Your task to perform on an android device: Show me the best rated power washer on Home Depot. Image 0: 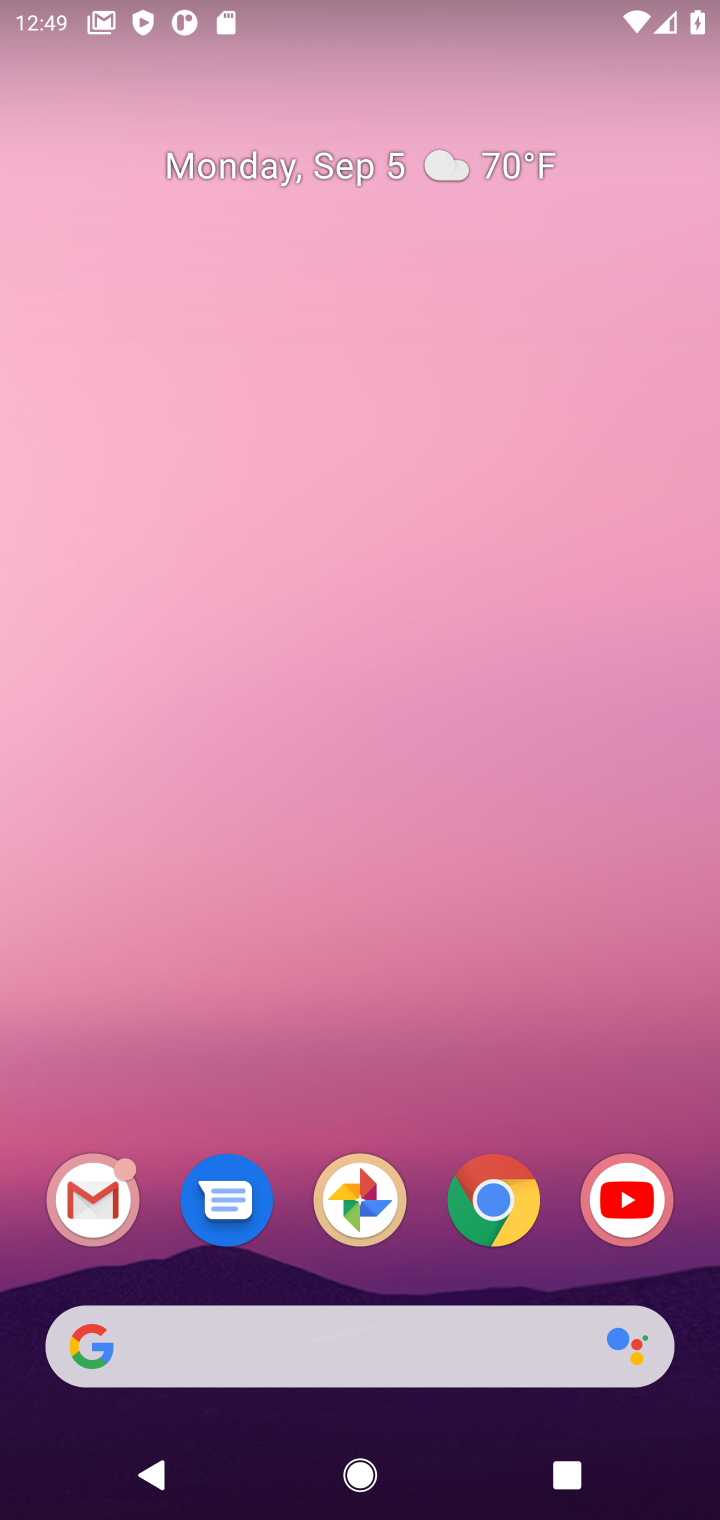
Step 0: drag from (433, 1302) to (596, 157)
Your task to perform on an android device: Show me the best rated power washer on Home Depot. Image 1: 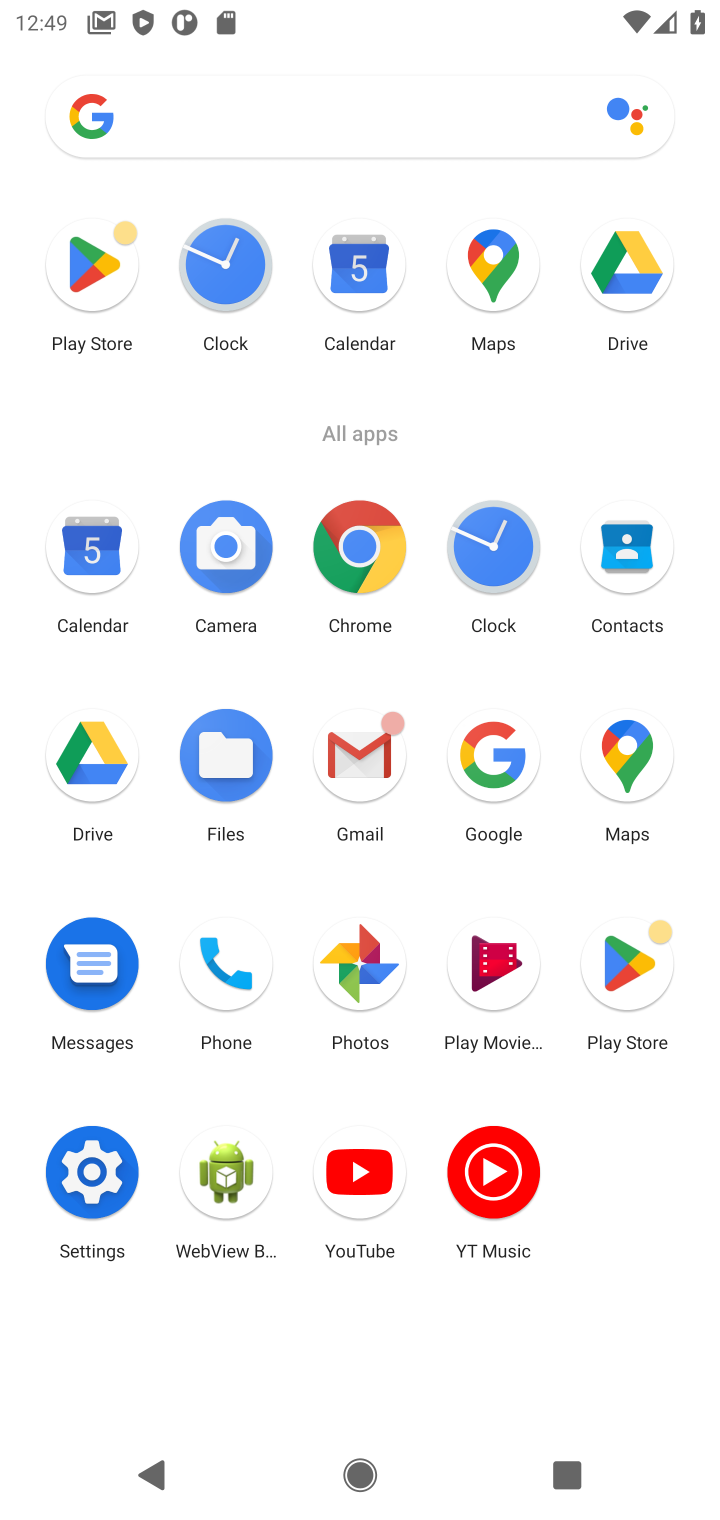
Step 1: click (363, 555)
Your task to perform on an android device: Show me the best rated power washer on Home Depot. Image 2: 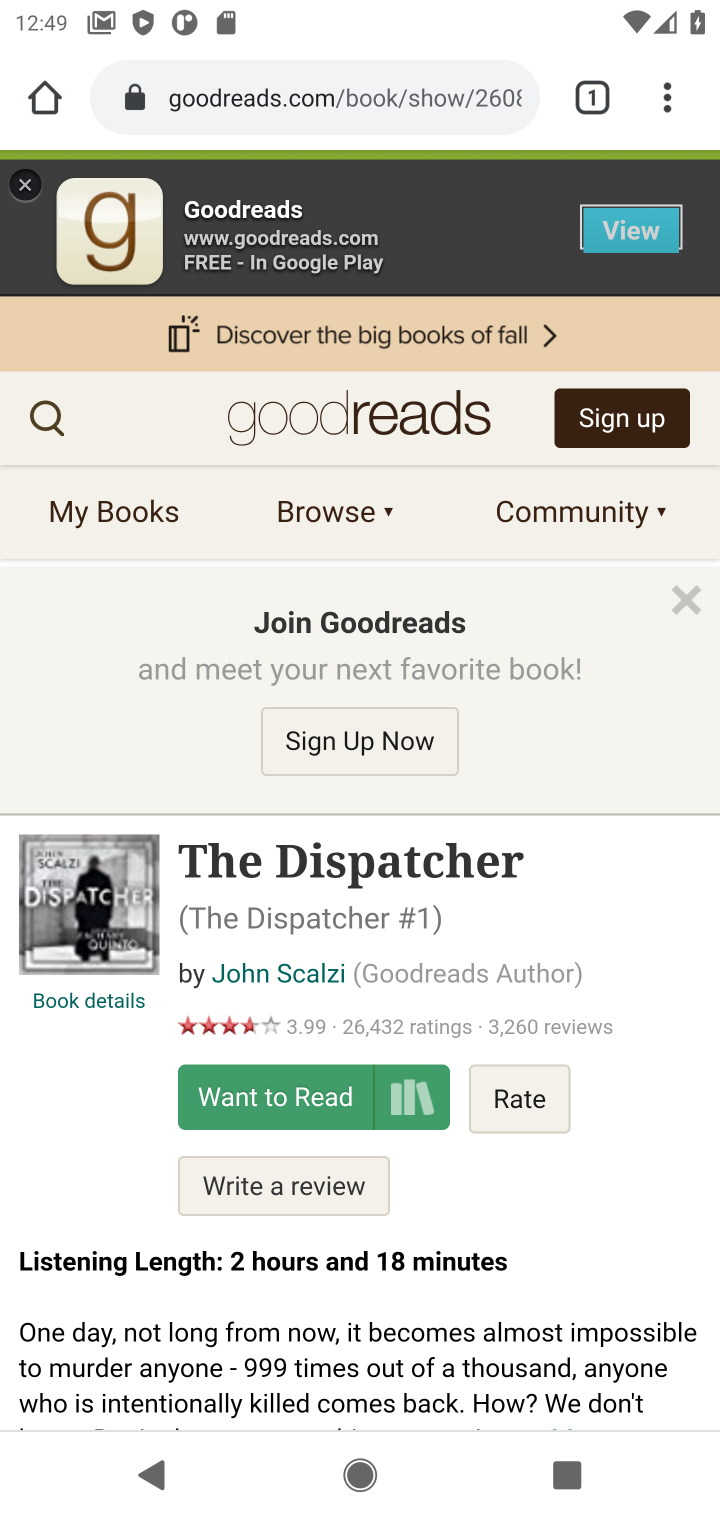
Step 2: click (358, 66)
Your task to perform on an android device: Show me the best rated power washer on Home Depot. Image 3: 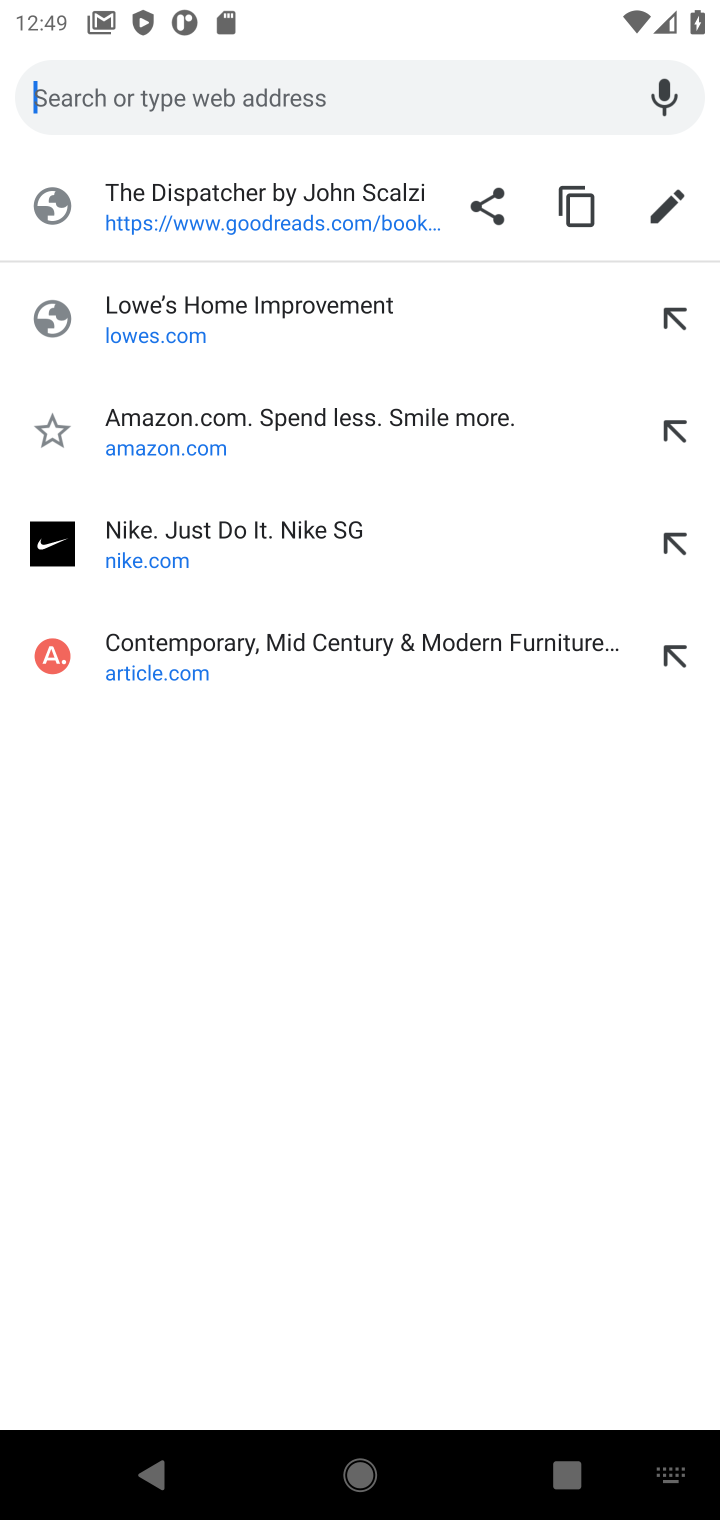
Step 3: type "home depot]"
Your task to perform on an android device: Show me the best rated power washer on Home Depot. Image 4: 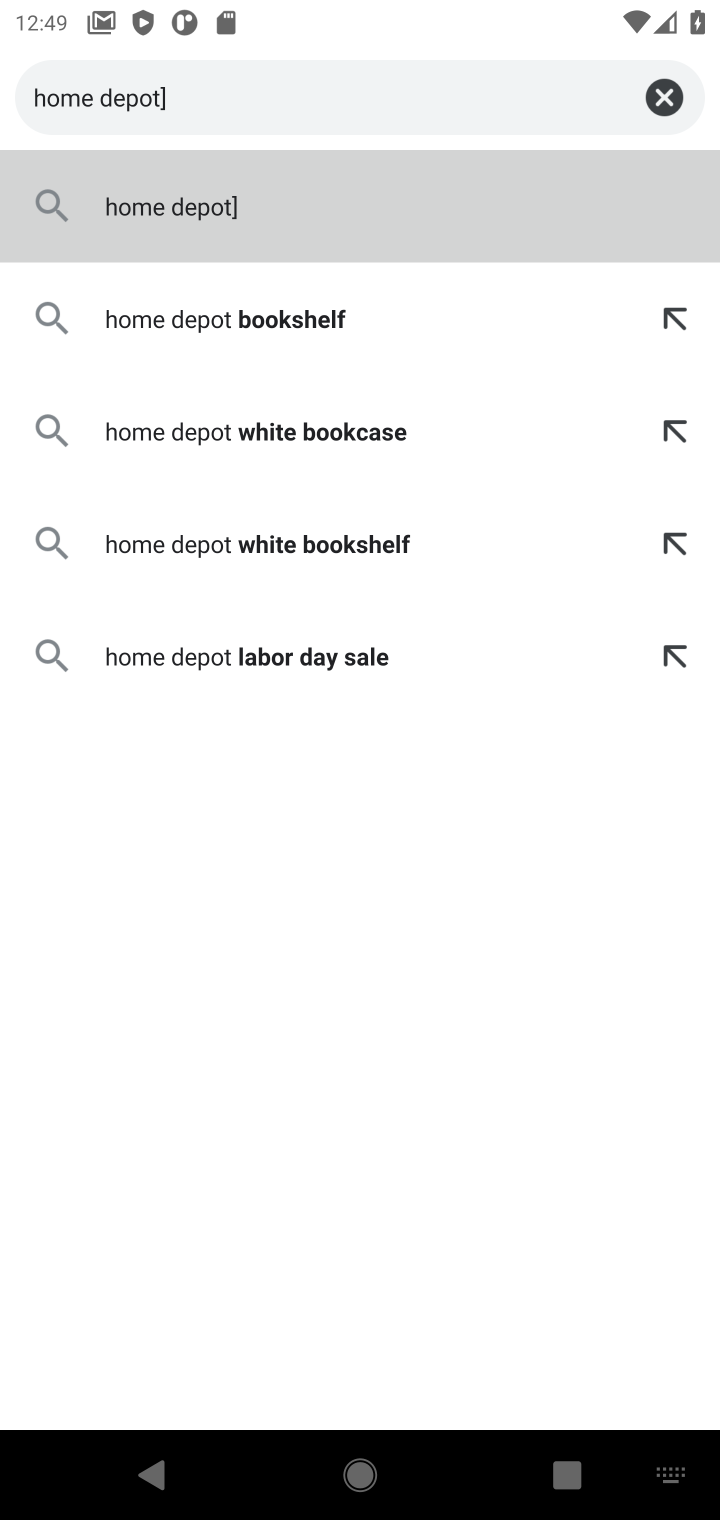
Step 4: click (663, 101)
Your task to perform on an android device: Show me the best rated power washer on Home Depot. Image 5: 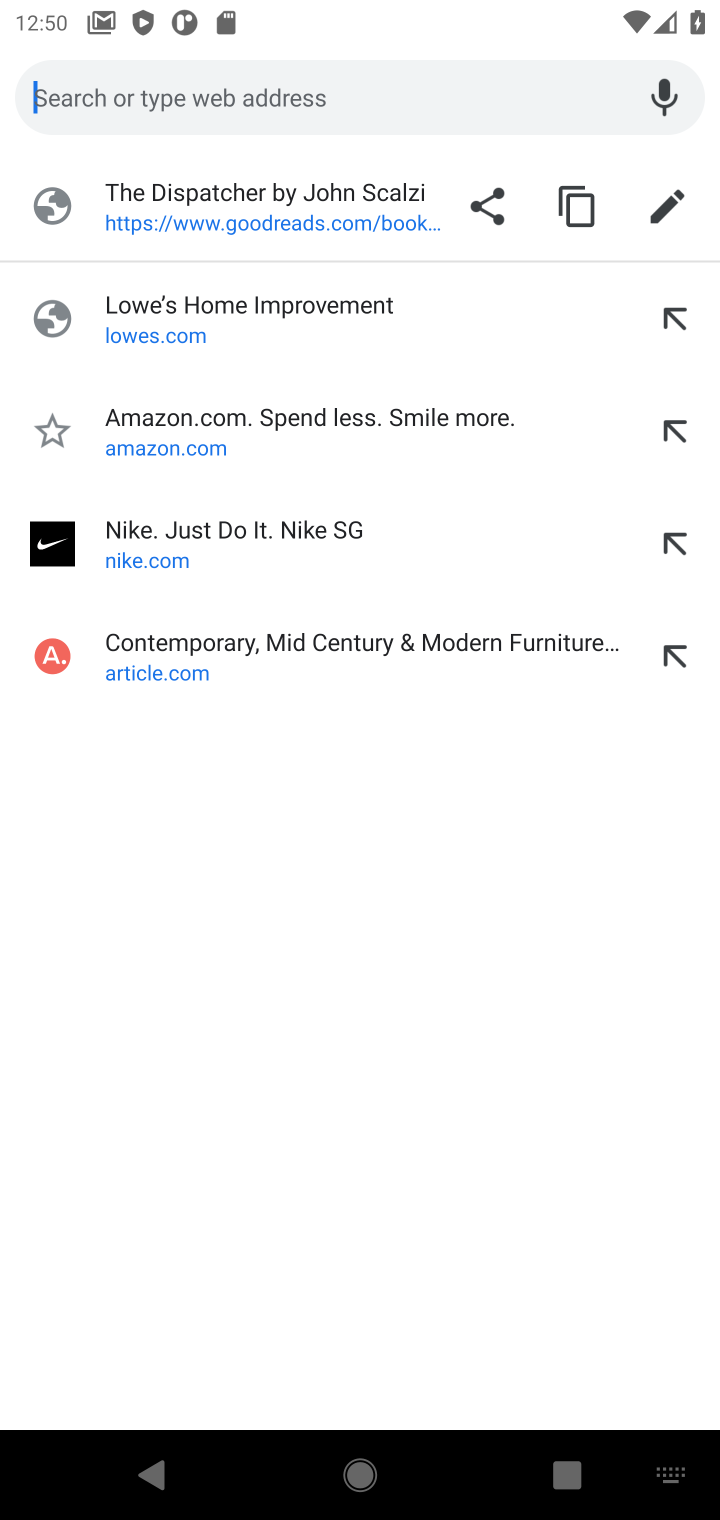
Step 5: type "home depot"
Your task to perform on an android device: Show me the best rated power washer on Home Depot. Image 6: 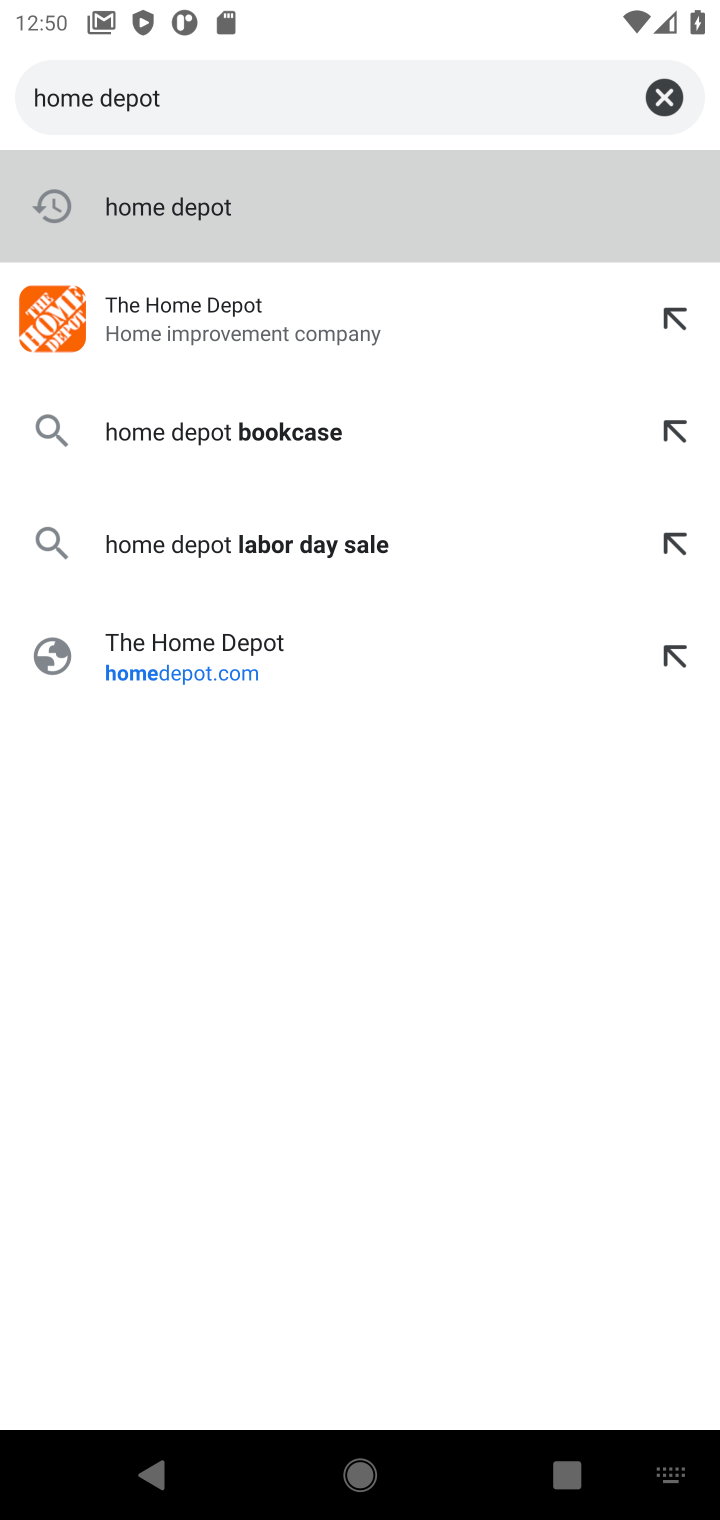
Step 6: click (340, 311)
Your task to perform on an android device: Show me the best rated power washer on Home Depot. Image 7: 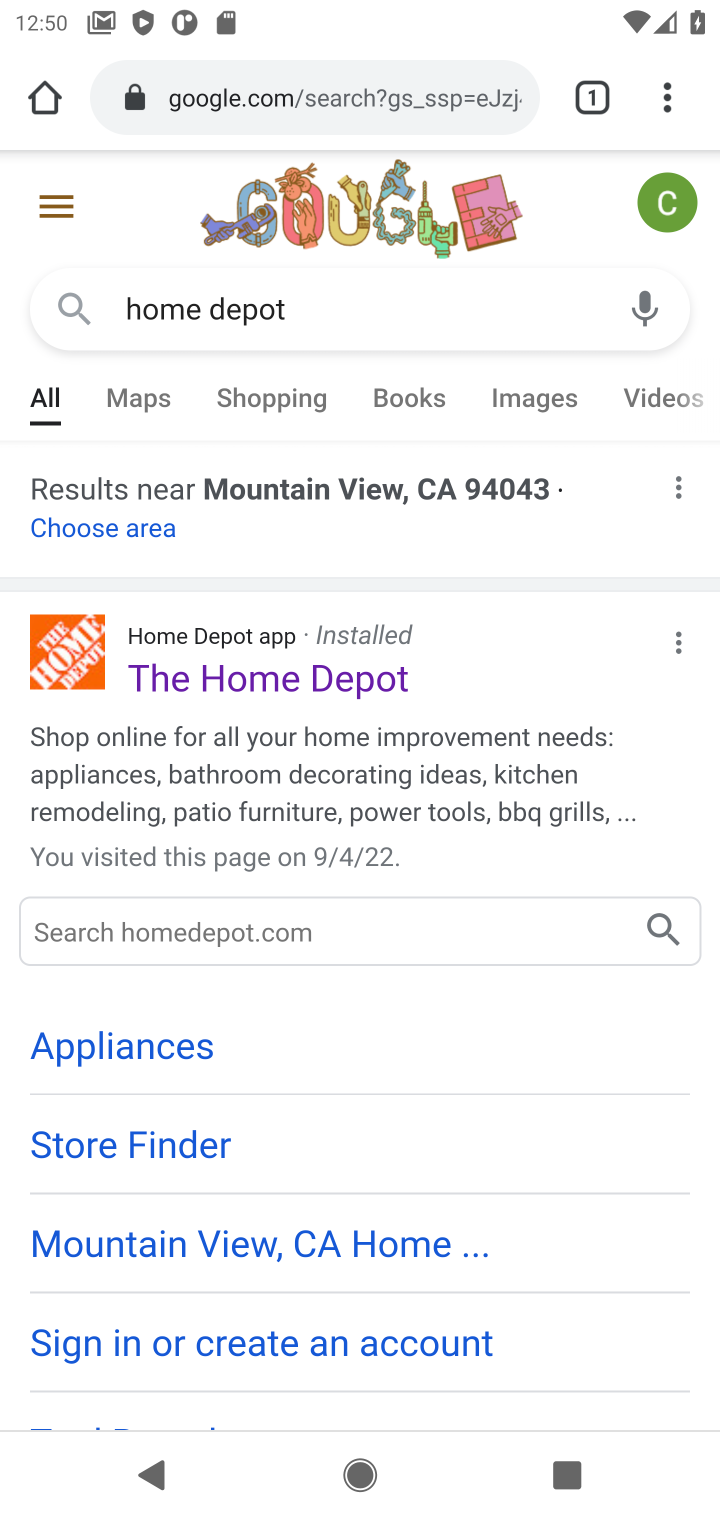
Step 7: click (383, 681)
Your task to perform on an android device: Show me the best rated power washer on Home Depot. Image 8: 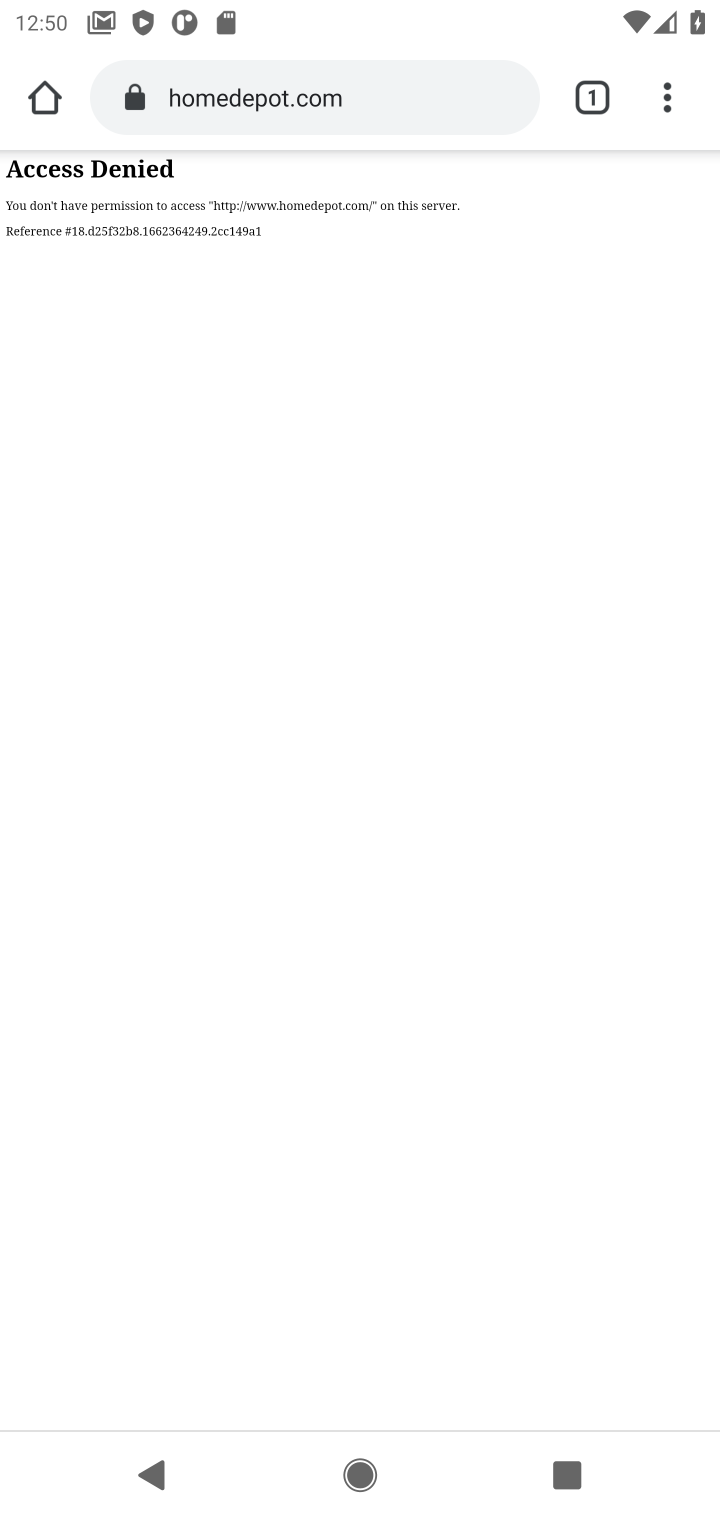
Step 8: task complete